Your task to perform on an android device: change your default location settings in chrome Image 0: 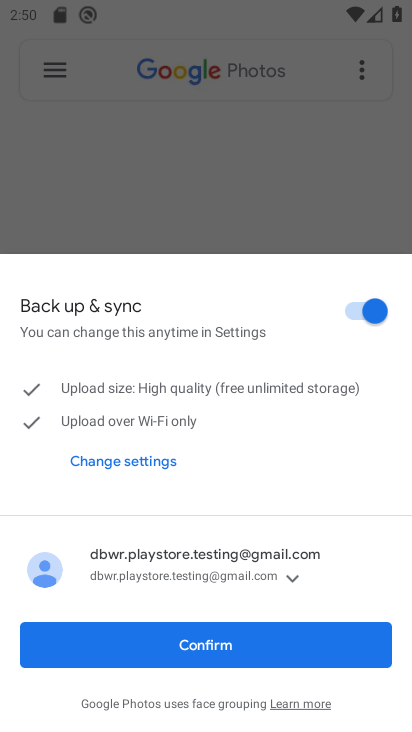
Step 0: press home button
Your task to perform on an android device: change your default location settings in chrome Image 1: 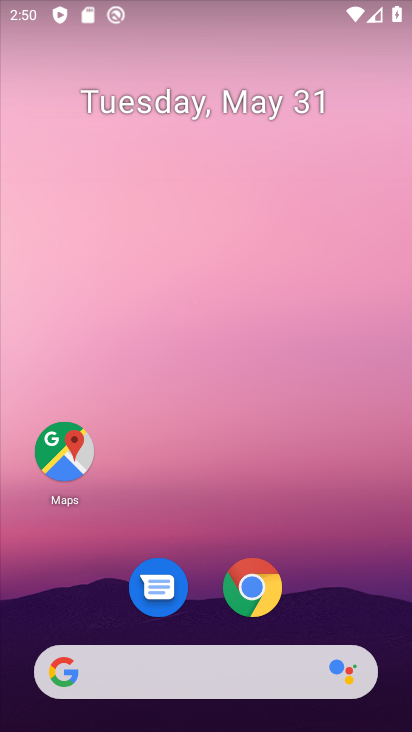
Step 1: click (254, 593)
Your task to perform on an android device: change your default location settings in chrome Image 2: 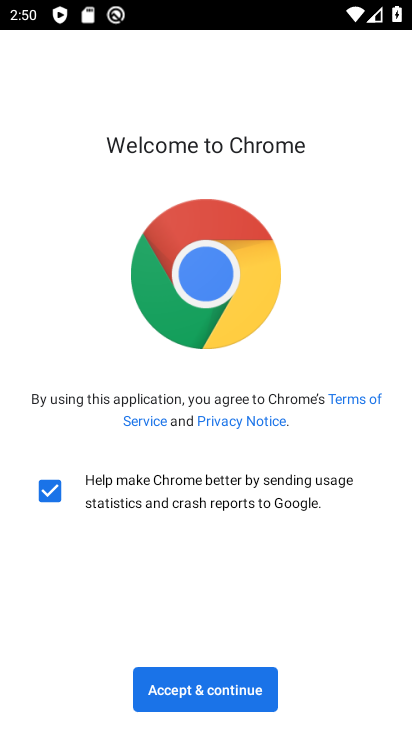
Step 2: click (225, 691)
Your task to perform on an android device: change your default location settings in chrome Image 3: 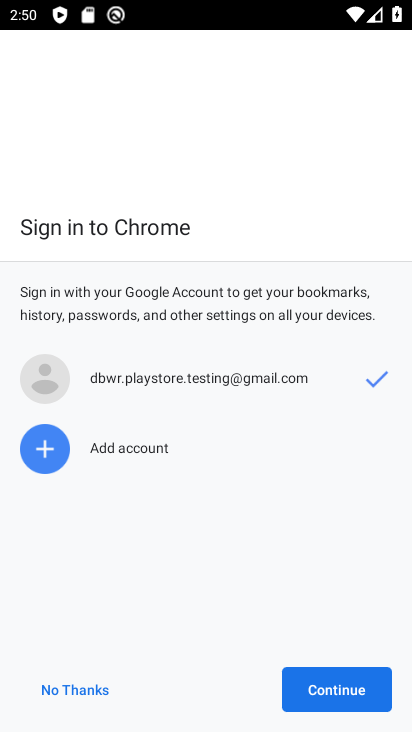
Step 3: click (312, 685)
Your task to perform on an android device: change your default location settings in chrome Image 4: 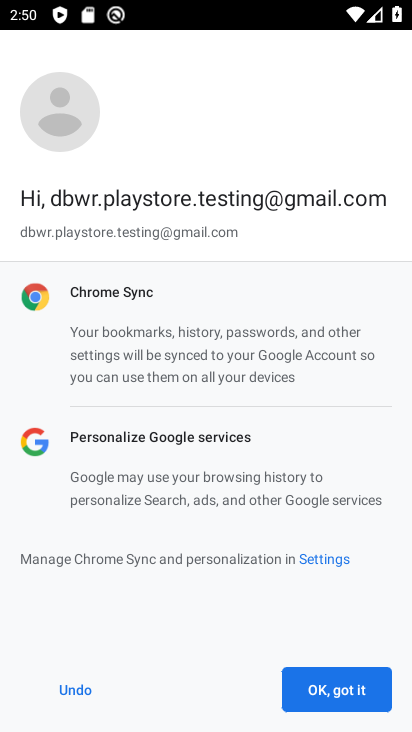
Step 4: click (312, 685)
Your task to perform on an android device: change your default location settings in chrome Image 5: 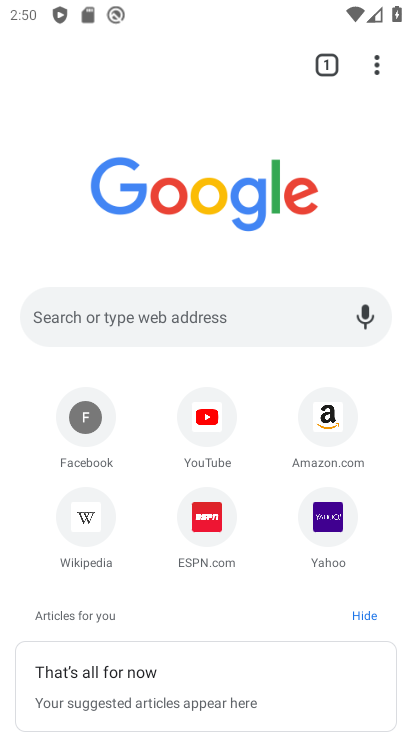
Step 5: click (382, 73)
Your task to perform on an android device: change your default location settings in chrome Image 6: 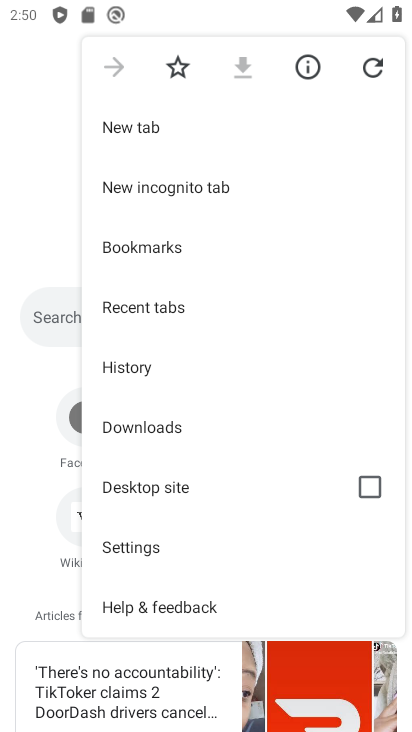
Step 6: click (225, 534)
Your task to perform on an android device: change your default location settings in chrome Image 7: 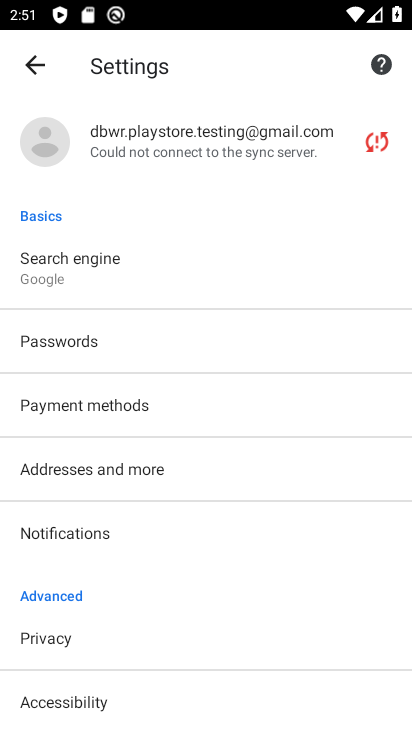
Step 7: drag from (176, 631) to (246, 140)
Your task to perform on an android device: change your default location settings in chrome Image 8: 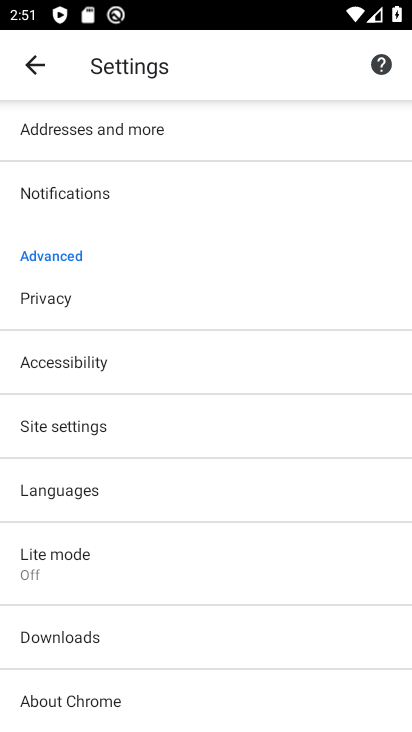
Step 8: click (202, 435)
Your task to perform on an android device: change your default location settings in chrome Image 9: 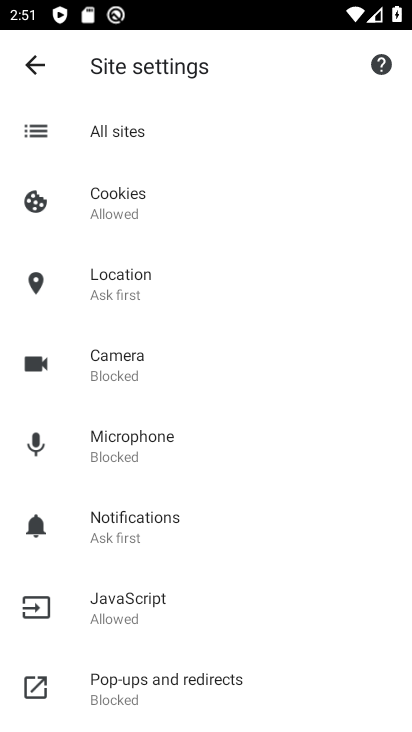
Step 9: click (193, 298)
Your task to perform on an android device: change your default location settings in chrome Image 10: 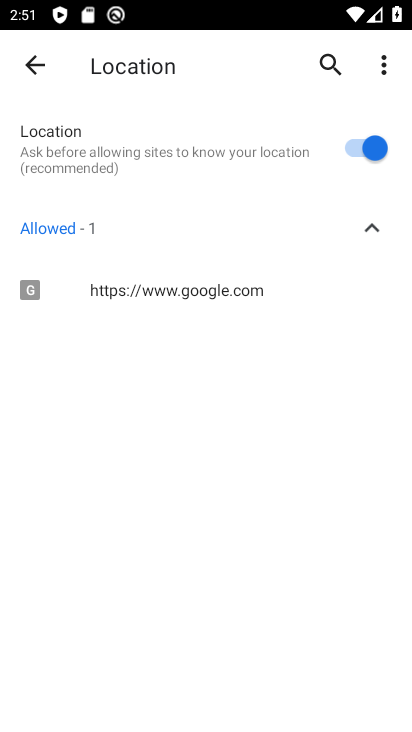
Step 10: task complete